Your task to perform on an android device: Set the phone to "Do not disturb". Image 0: 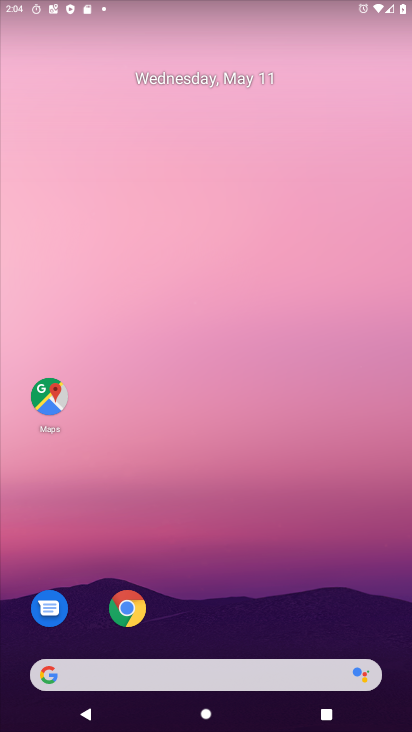
Step 0: drag from (129, 679) to (200, 112)
Your task to perform on an android device: Set the phone to "Do not disturb". Image 1: 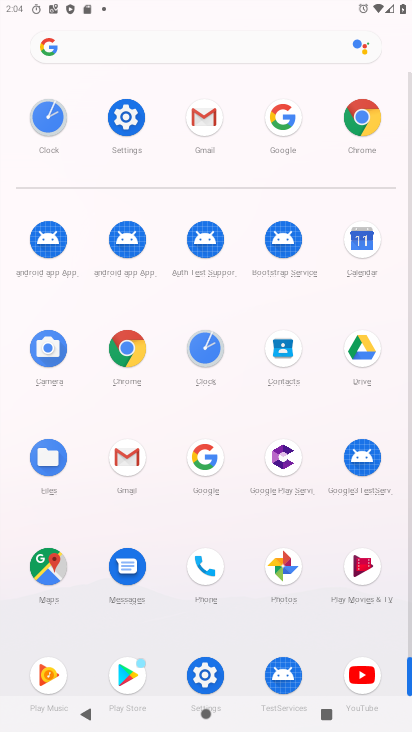
Step 1: drag from (268, 12) to (267, 293)
Your task to perform on an android device: Set the phone to "Do not disturb". Image 2: 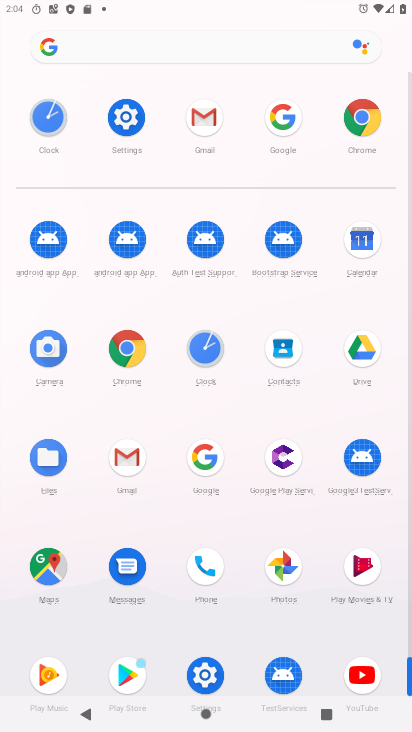
Step 2: drag from (236, 9) to (233, 499)
Your task to perform on an android device: Set the phone to "Do not disturb". Image 3: 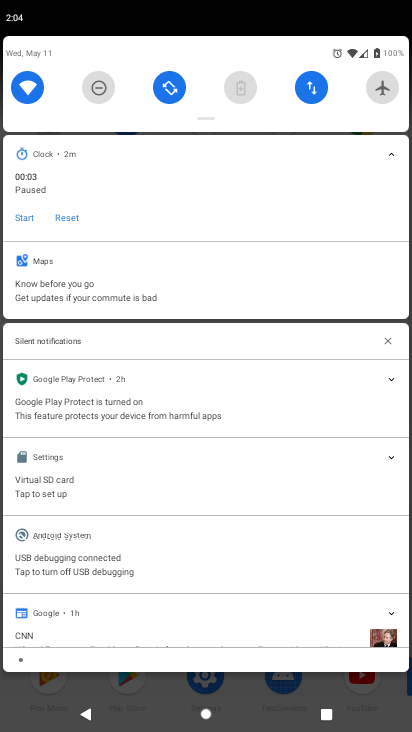
Step 3: click (95, 92)
Your task to perform on an android device: Set the phone to "Do not disturb". Image 4: 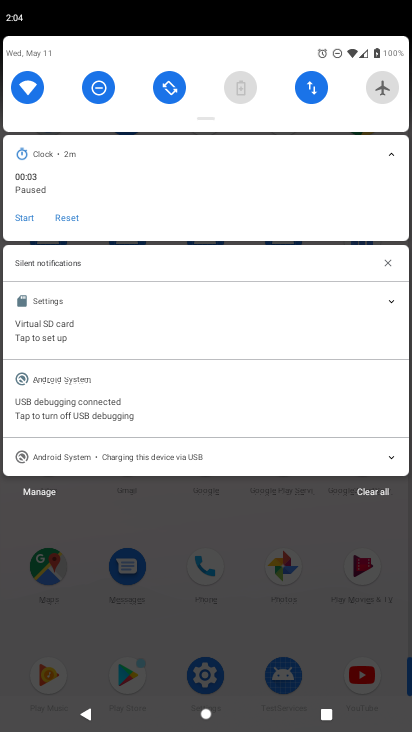
Step 4: task complete